Your task to perform on an android device: uninstall "Duolingo: language lessons" Image 0: 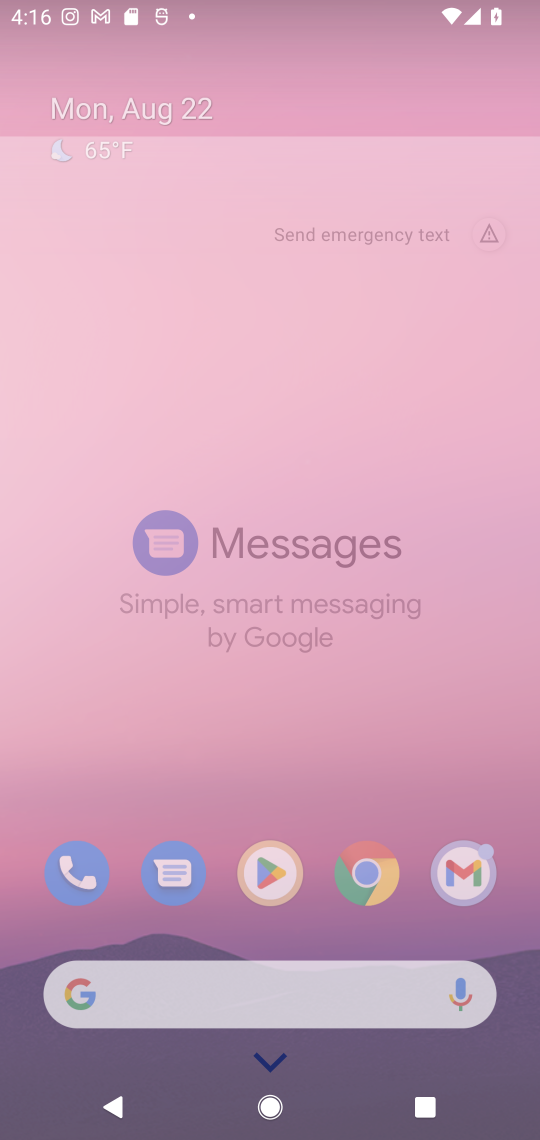
Step 0: press home button
Your task to perform on an android device: uninstall "Duolingo: language lessons" Image 1: 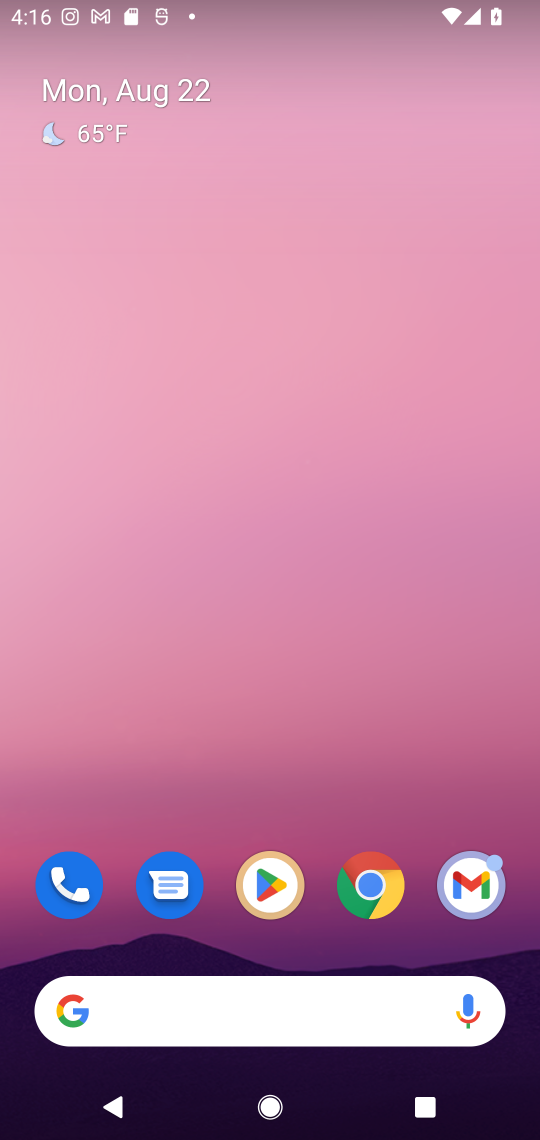
Step 1: press home button
Your task to perform on an android device: uninstall "Duolingo: language lessons" Image 2: 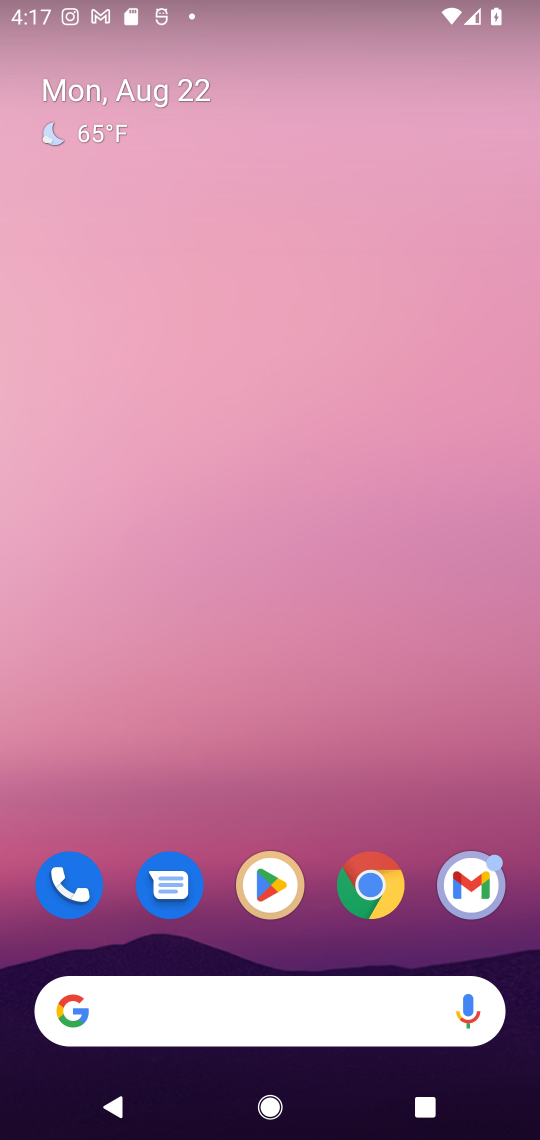
Step 2: click (272, 880)
Your task to perform on an android device: uninstall "Duolingo: language lessons" Image 3: 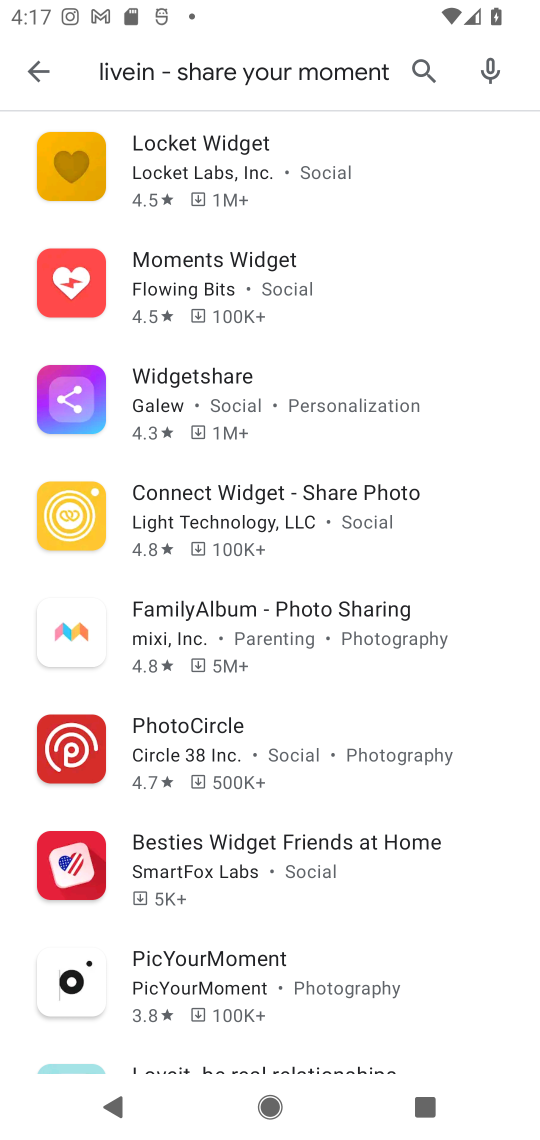
Step 3: click (431, 64)
Your task to perform on an android device: uninstall "Duolingo: language lessons" Image 4: 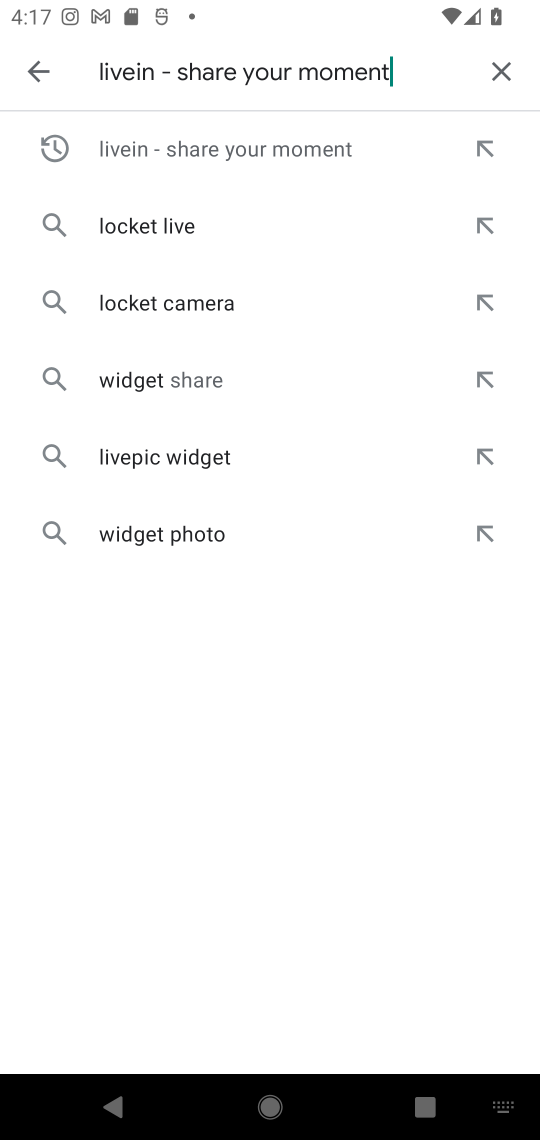
Step 4: click (498, 70)
Your task to perform on an android device: uninstall "Duolingo: language lessons" Image 5: 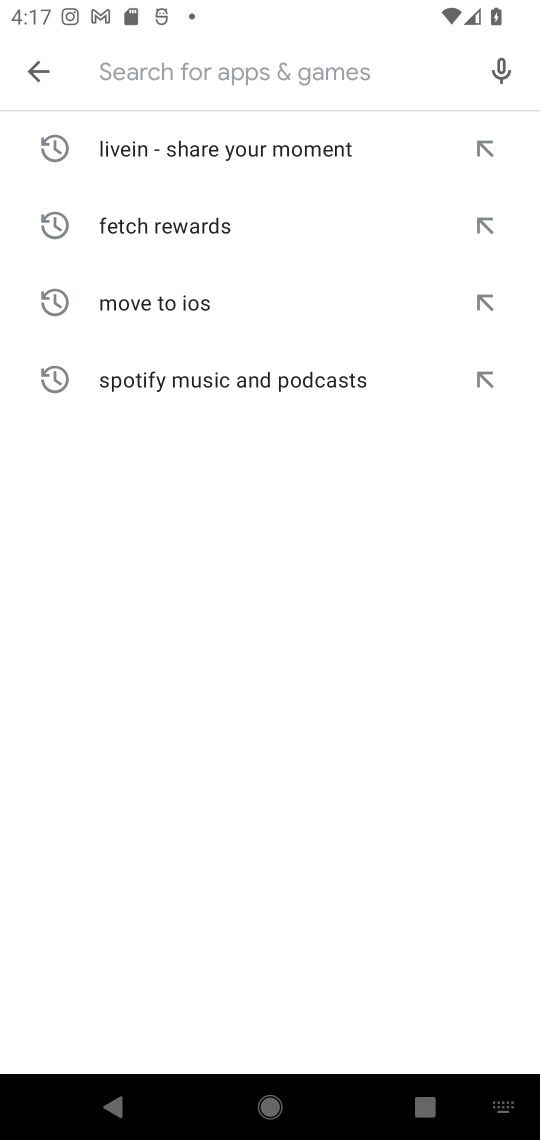
Step 5: type "Duolingo: language lessons"
Your task to perform on an android device: uninstall "Duolingo: language lessons" Image 6: 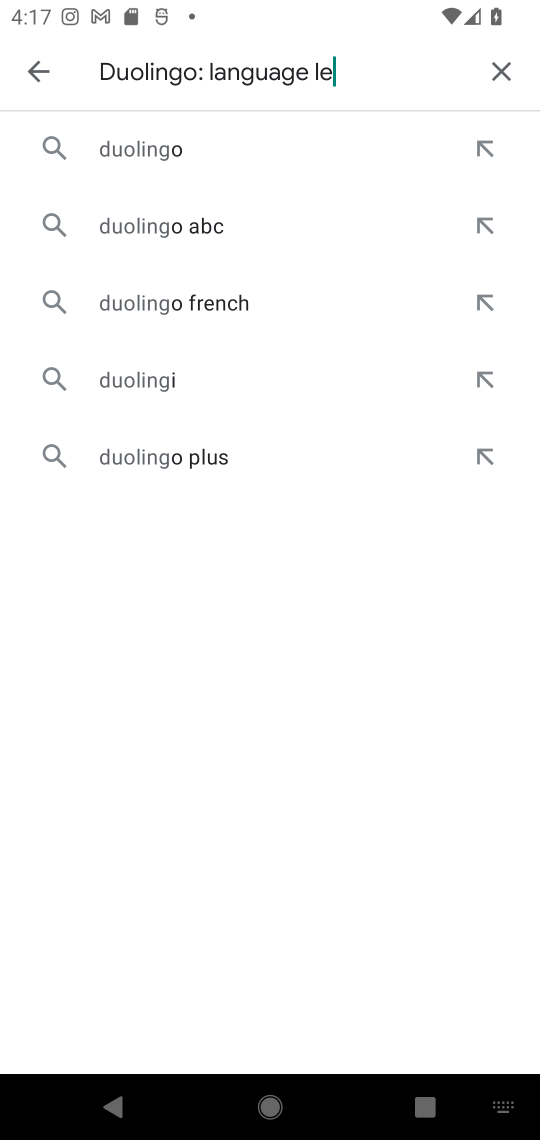
Step 6: type ""
Your task to perform on an android device: uninstall "Duolingo: language lessons" Image 7: 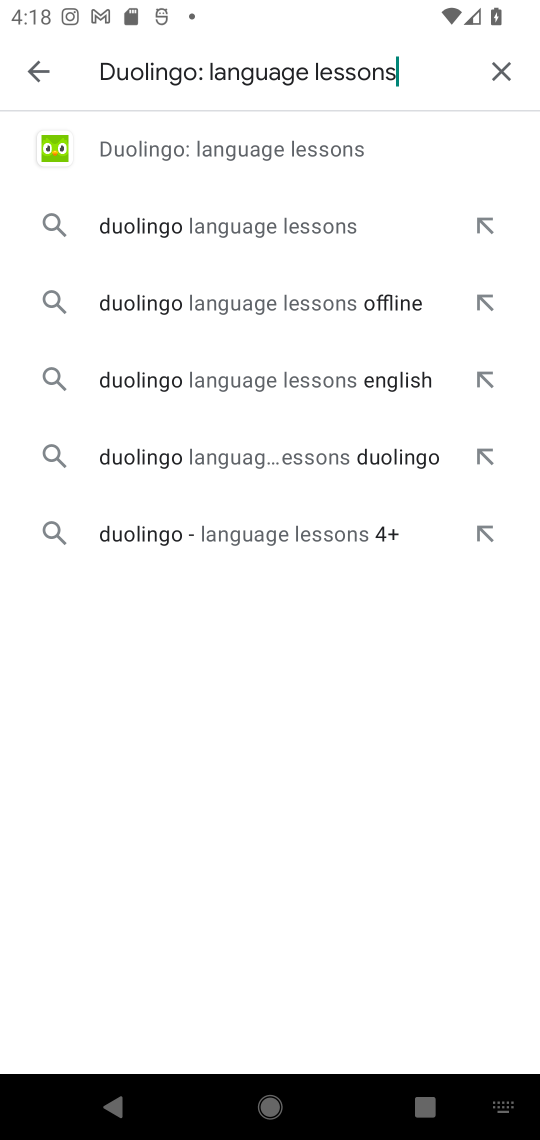
Step 7: click (241, 150)
Your task to perform on an android device: uninstall "Duolingo: language lessons" Image 8: 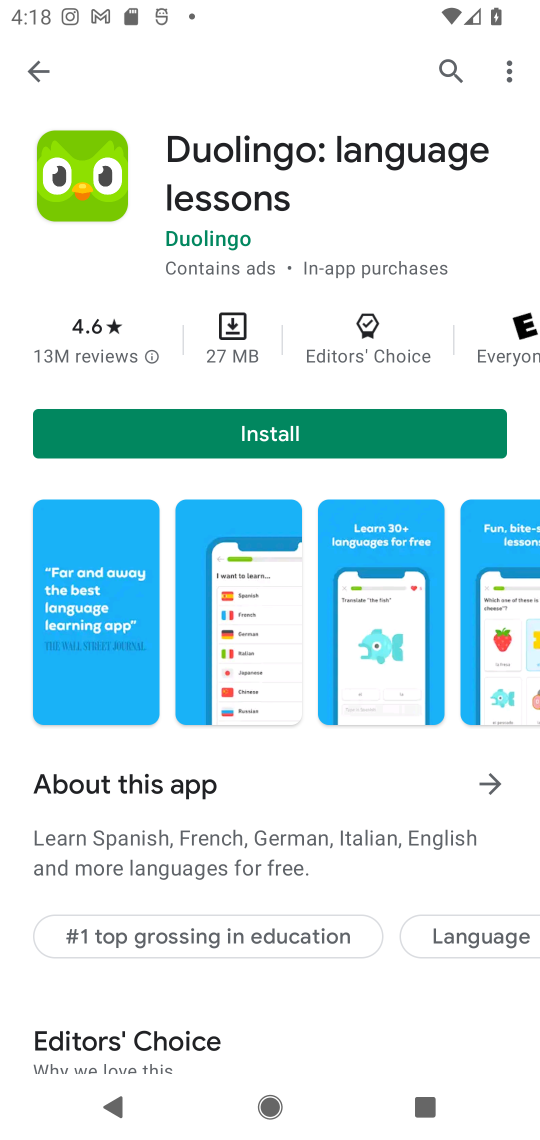
Step 8: task complete